Your task to perform on an android device: Add bose soundlink mini to the cart on target Image 0: 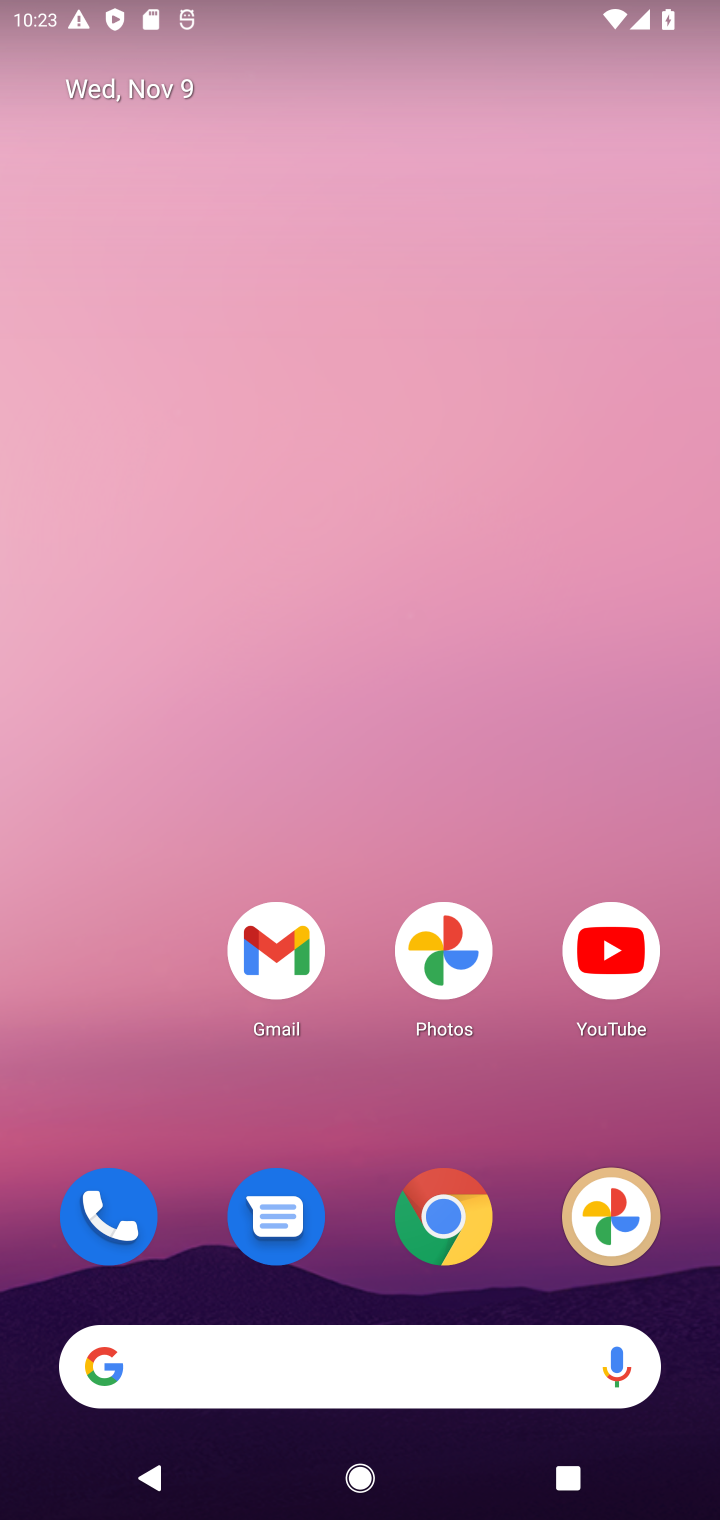
Step 0: drag from (376, 1112) to (395, 1)
Your task to perform on an android device: Add bose soundlink mini to the cart on target Image 1: 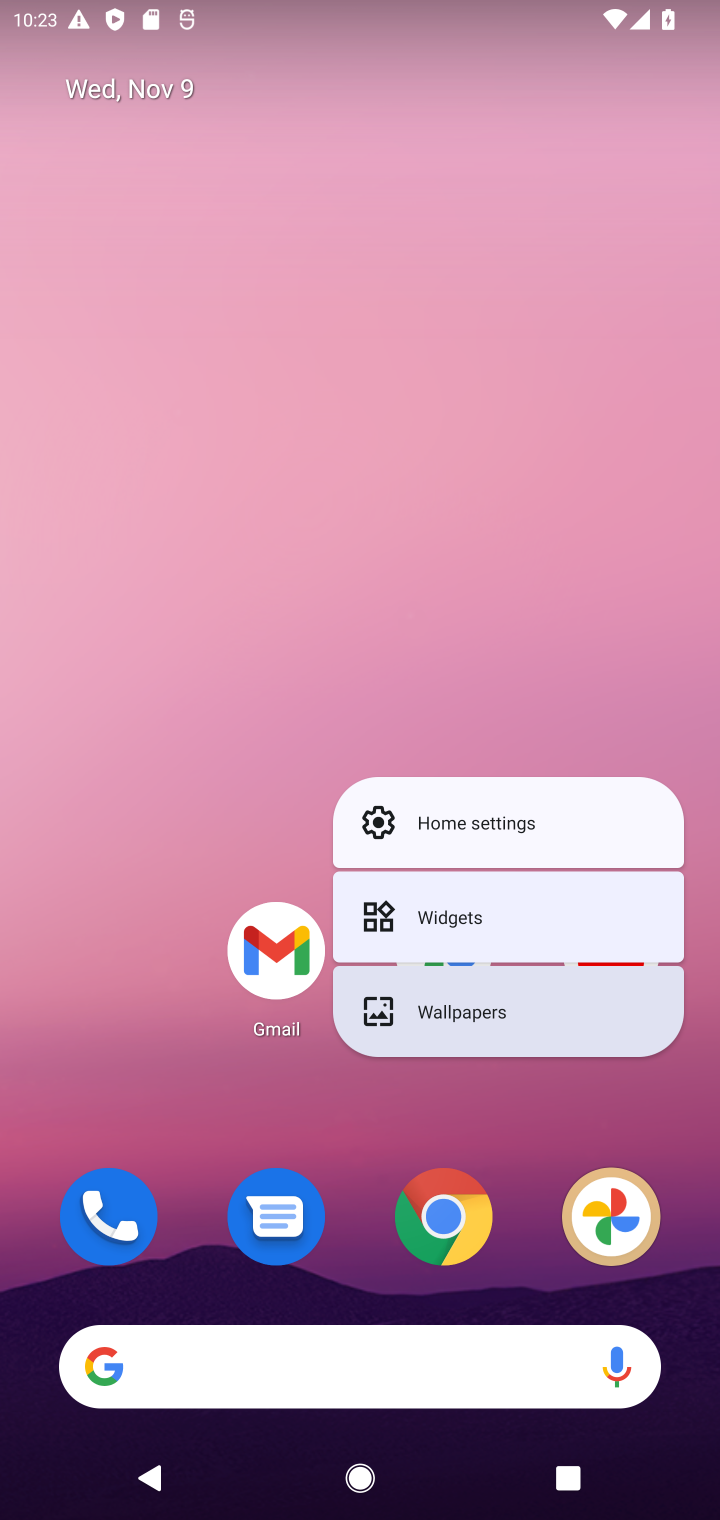
Step 1: click (285, 1148)
Your task to perform on an android device: Add bose soundlink mini to the cart on target Image 2: 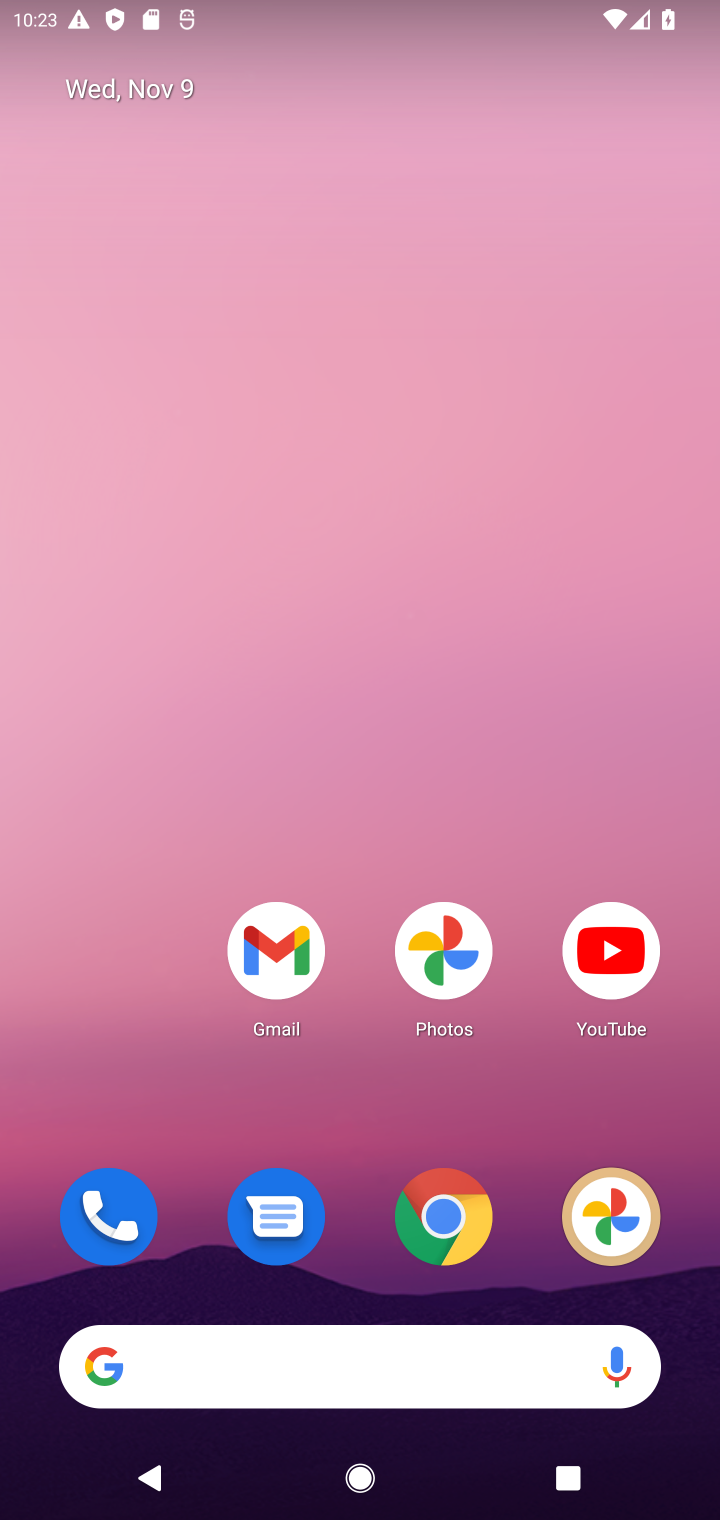
Step 2: drag from (369, 1152) to (443, 0)
Your task to perform on an android device: Add bose soundlink mini to the cart on target Image 3: 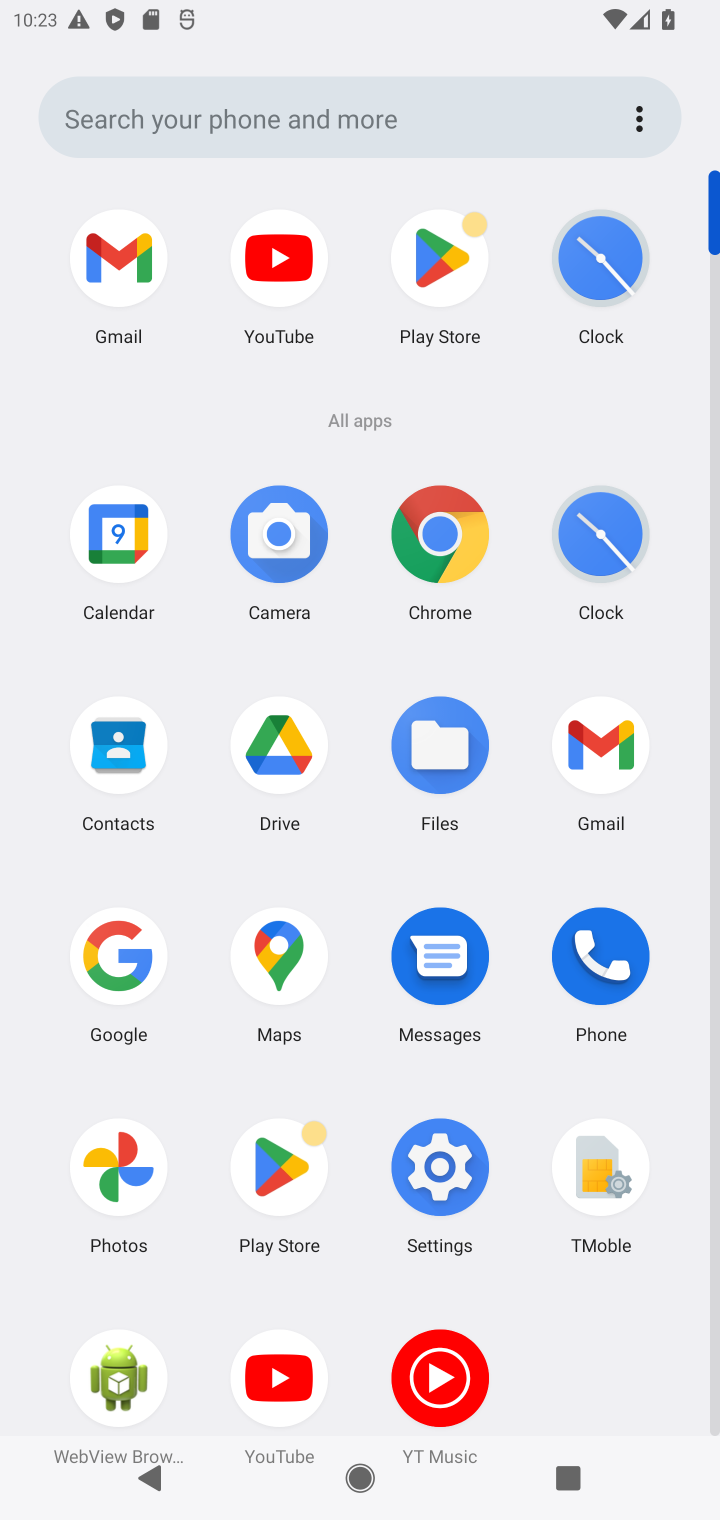
Step 3: click (421, 535)
Your task to perform on an android device: Add bose soundlink mini to the cart on target Image 4: 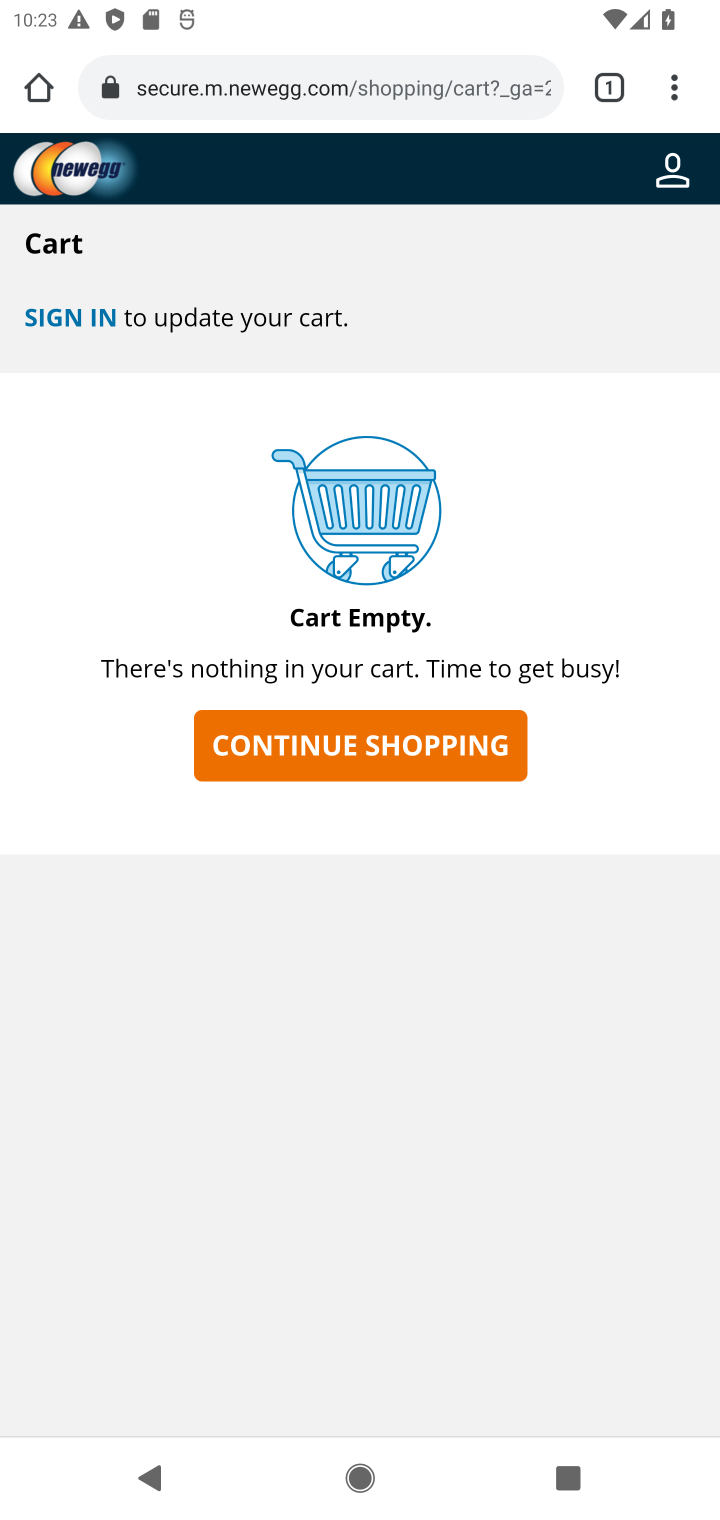
Step 4: click (444, 87)
Your task to perform on an android device: Add bose soundlink mini to the cart on target Image 5: 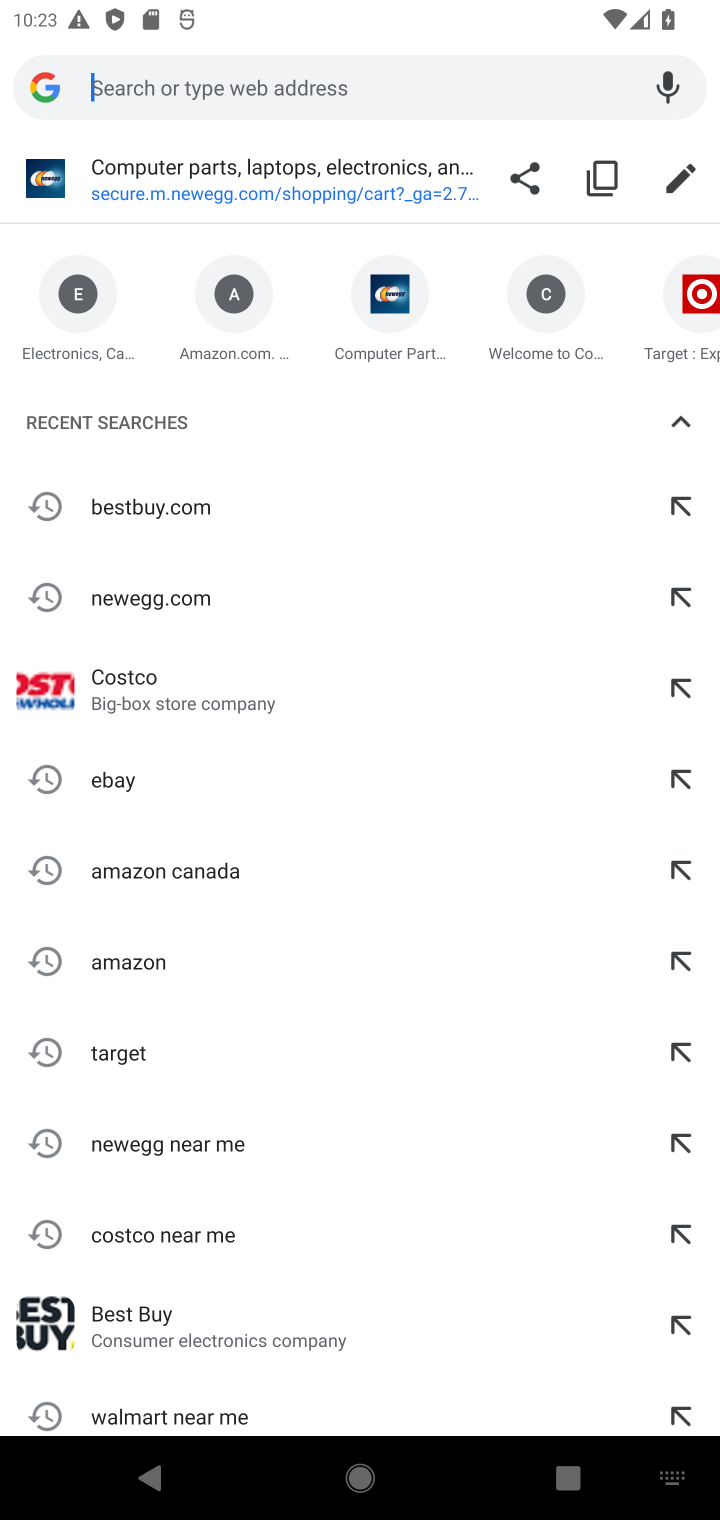
Step 5: type "target.com"
Your task to perform on an android device: Add bose soundlink mini to the cart on target Image 6: 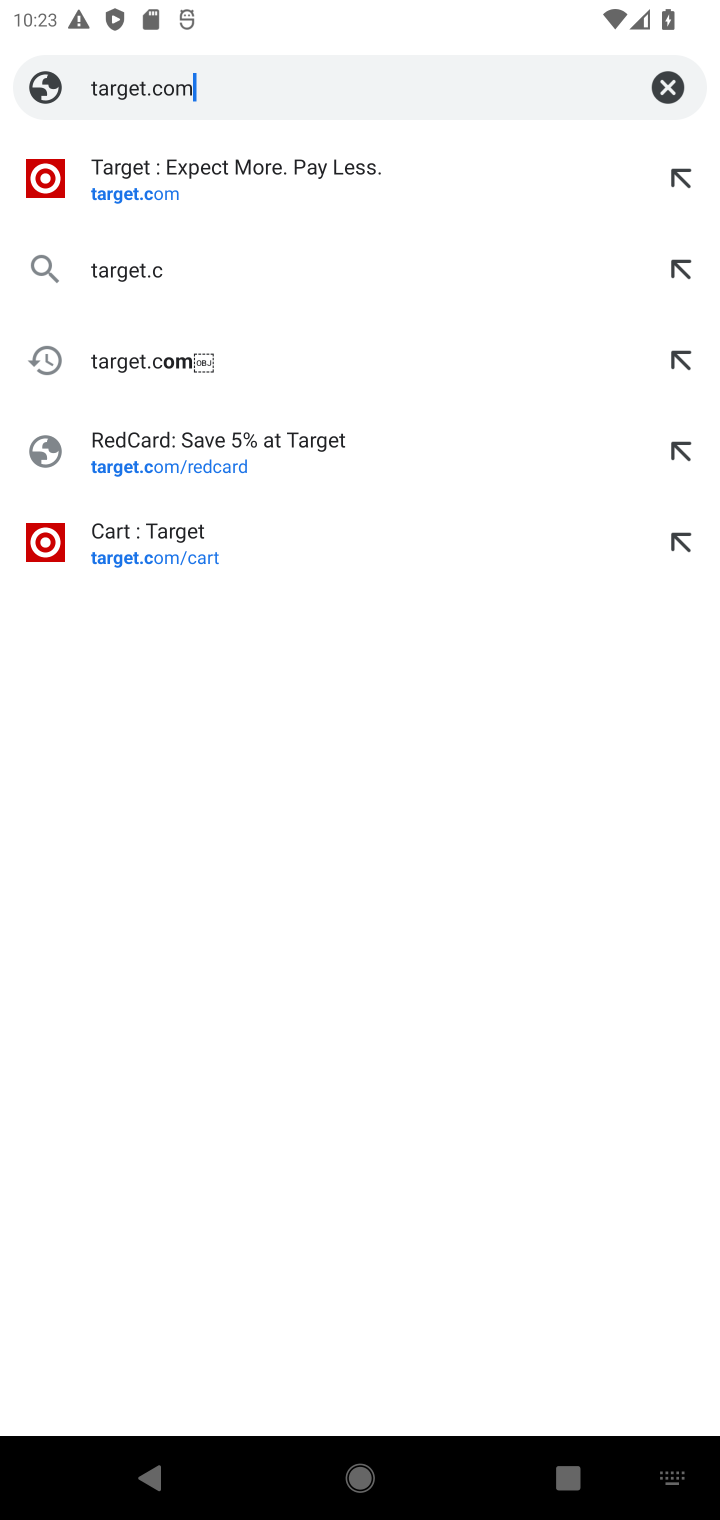
Step 6: press enter
Your task to perform on an android device: Add bose soundlink mini to the cart on target Image 7: 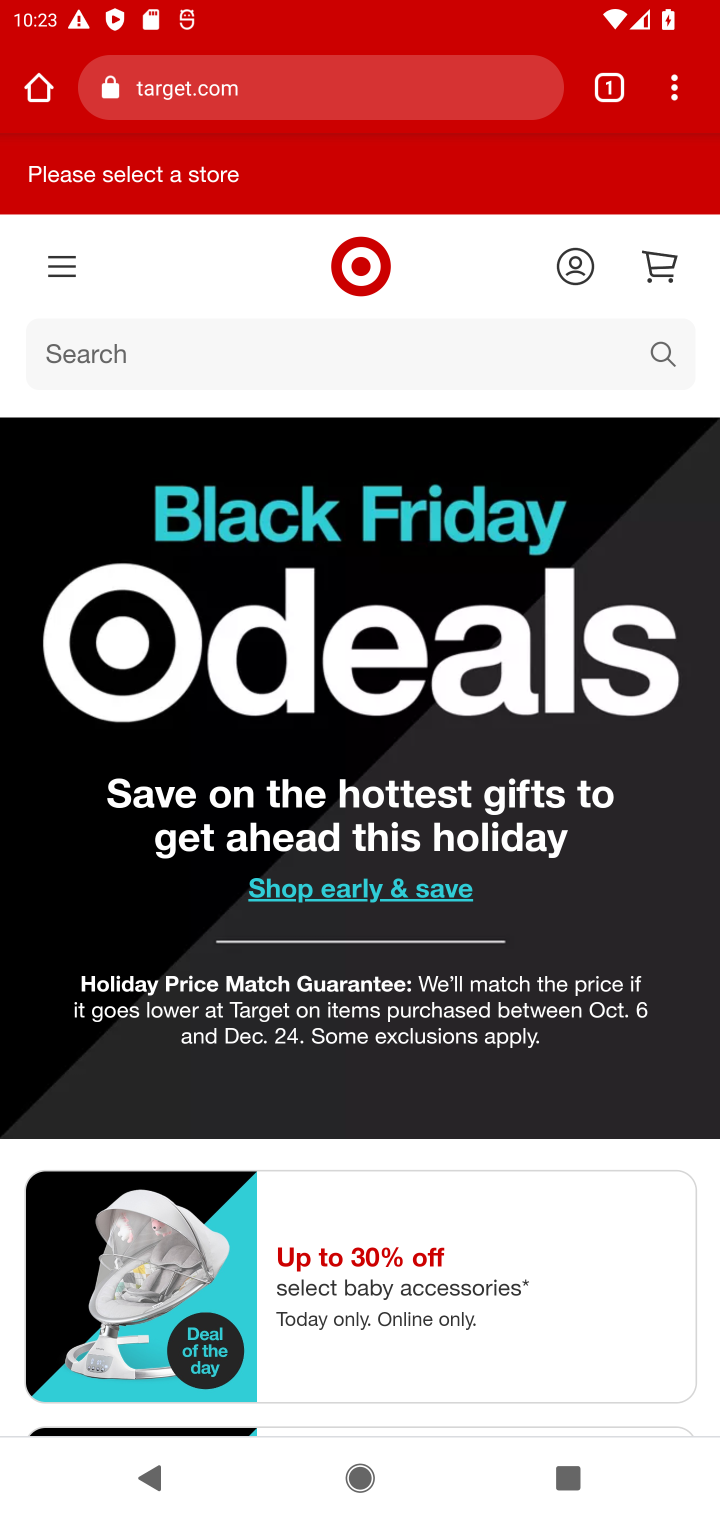
Step 7: click (185, 343)
Your task to perform on an android device: Add bose soundlink mini to the cart on target Image 8: 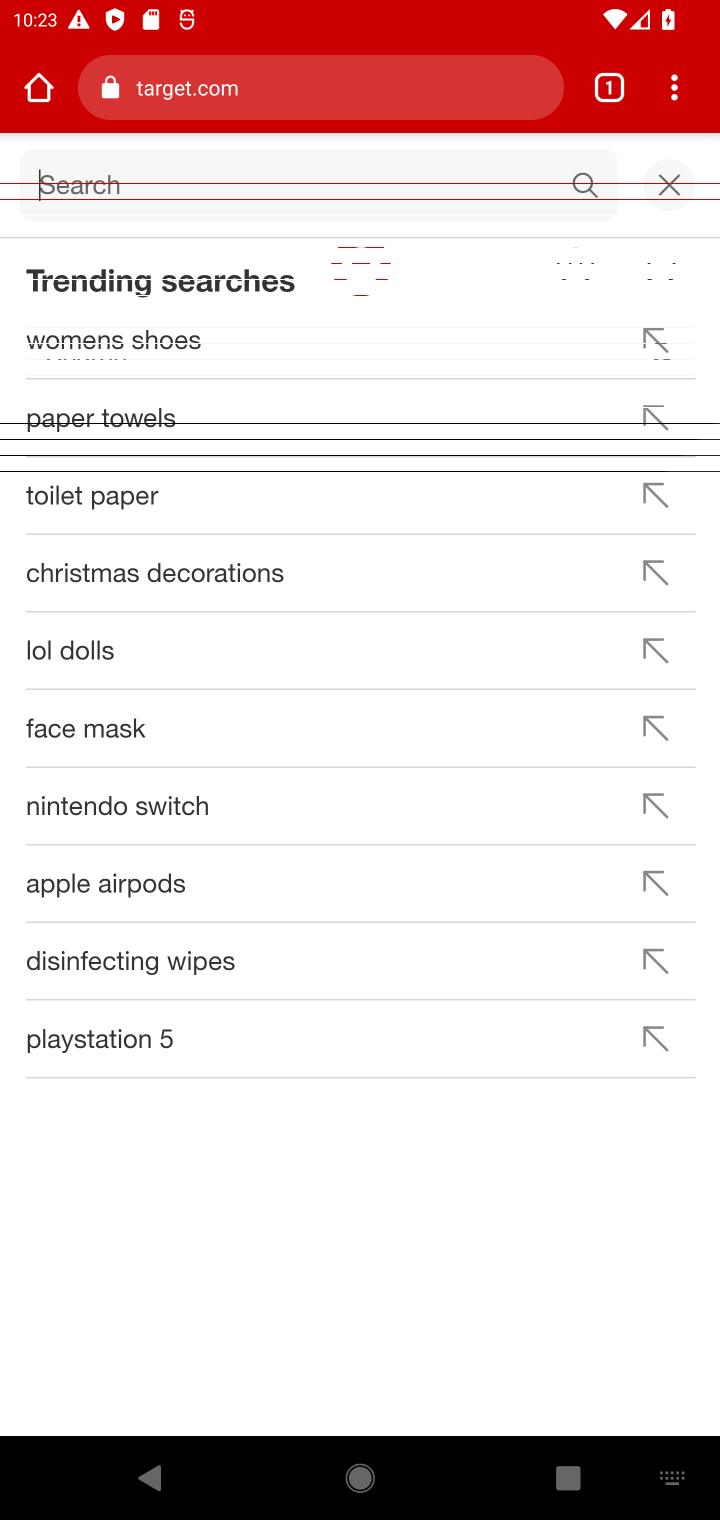
Step 8: type "bose soundlink"
Your task to perform on an android device: Add bose soundlink mini to the cart on target Image 9: 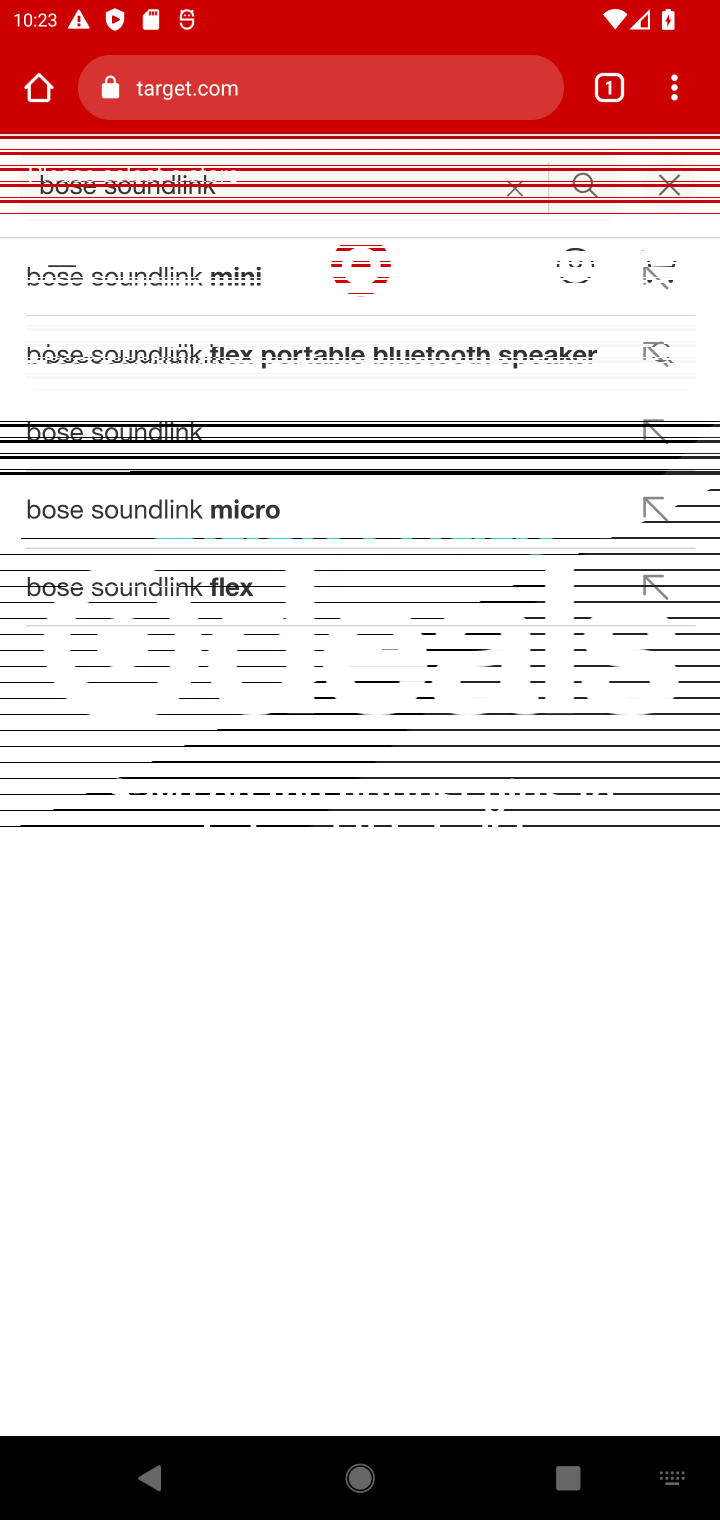
Step 9: press enter
Your task to perform on an android device: Add bose soundlink mini to the cart on target Image 10: 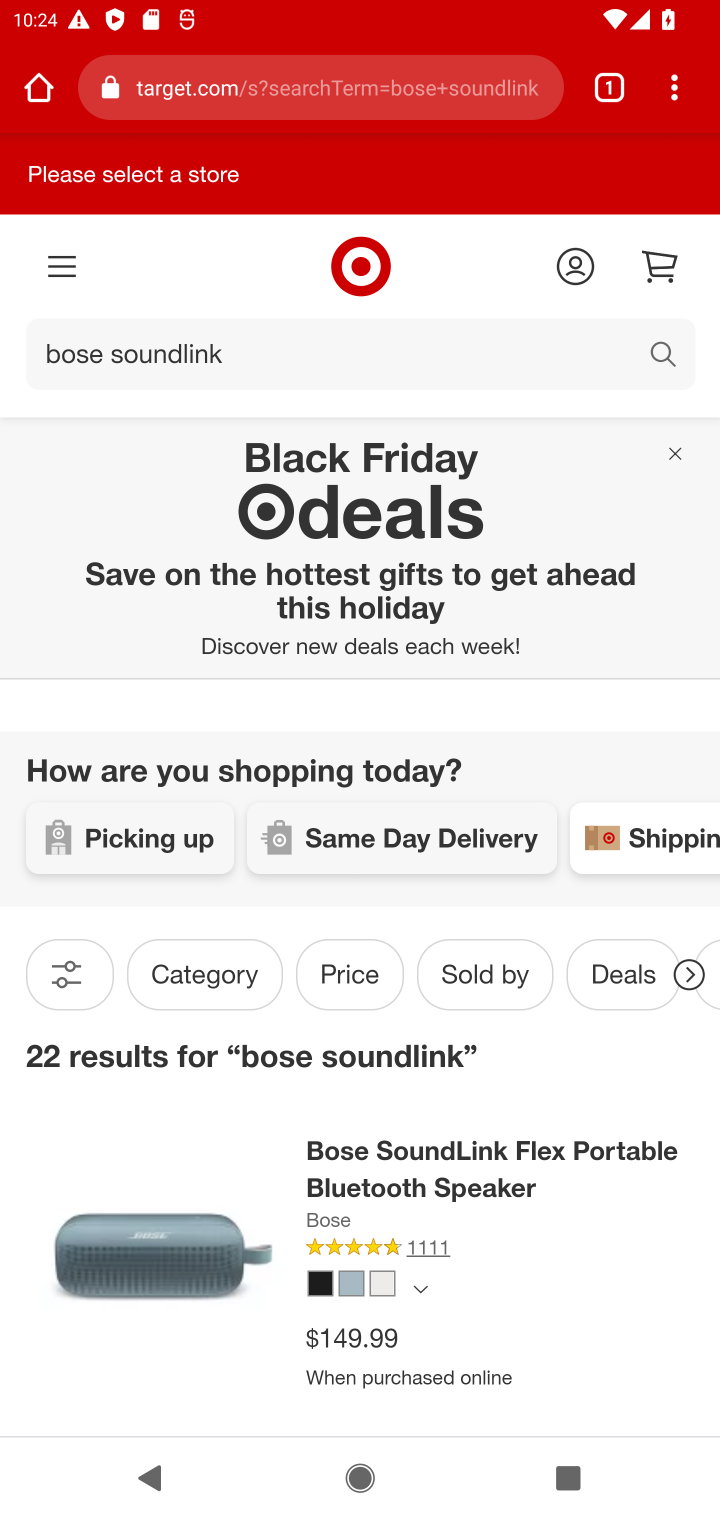
Step 10: task complete